Your task to perform on an android device: When is my next appointment? Image 0: 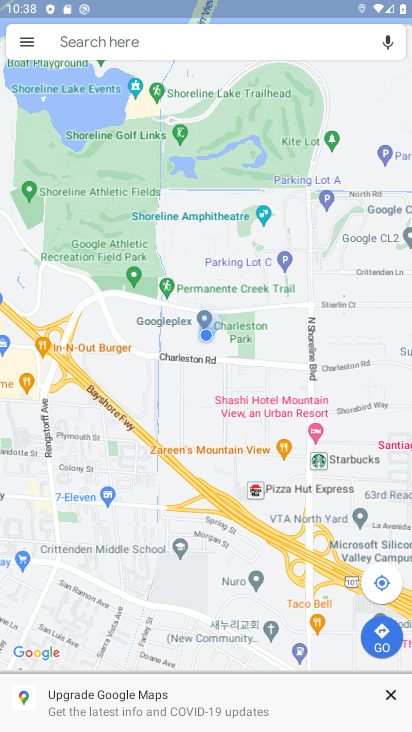
Step 0: press home button
Your task to perform on an android device: When is my next appointment? Image 1: 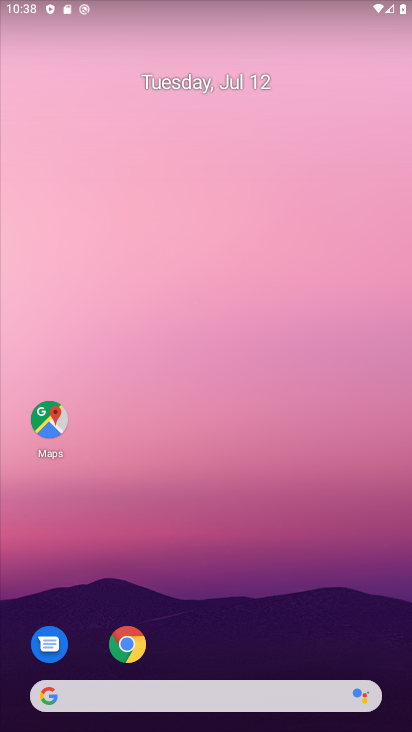
Step 1: drag from (257, 695) to (178, 337)
Your task to perform on an android device: When is my next appointment? Image 2: 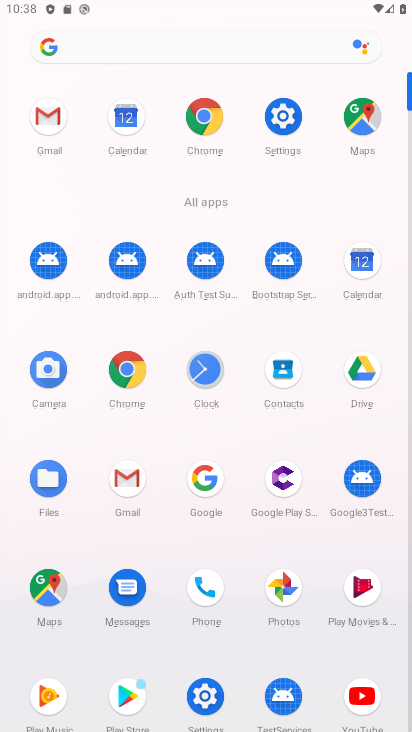
Step 2: click (126, 118)
Your task to perform on an android device: When is my next appointment? Image 3: 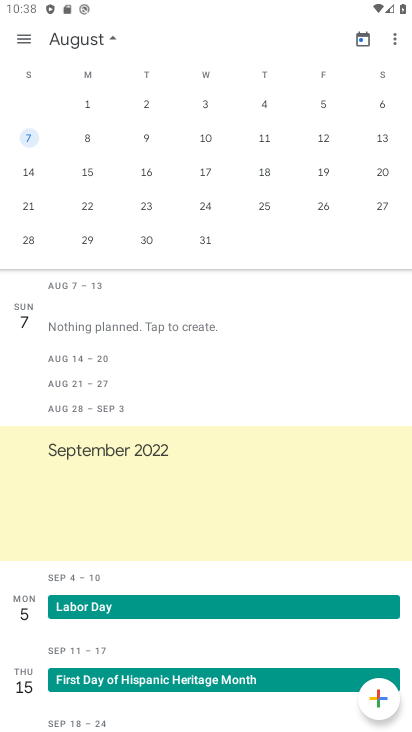
Step 3: click (73, 42)
Your task to perform on an android device: When is my next appointment? Image 4: 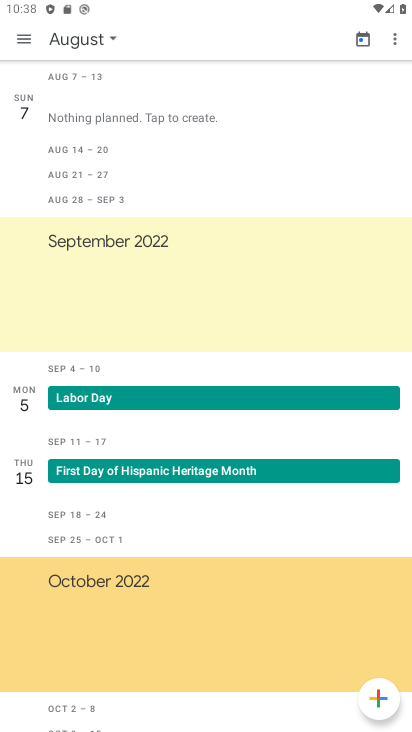
Step 4: click (69, 38)
Your task to perform on an android device: When is my next appointment? Image 5: 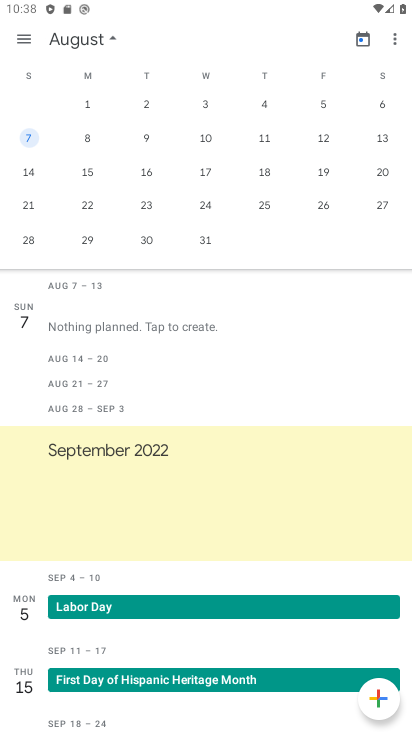
Step 5: task complete